Your task to perform on an android device: install app "Microsoft Outlook" Image 0: 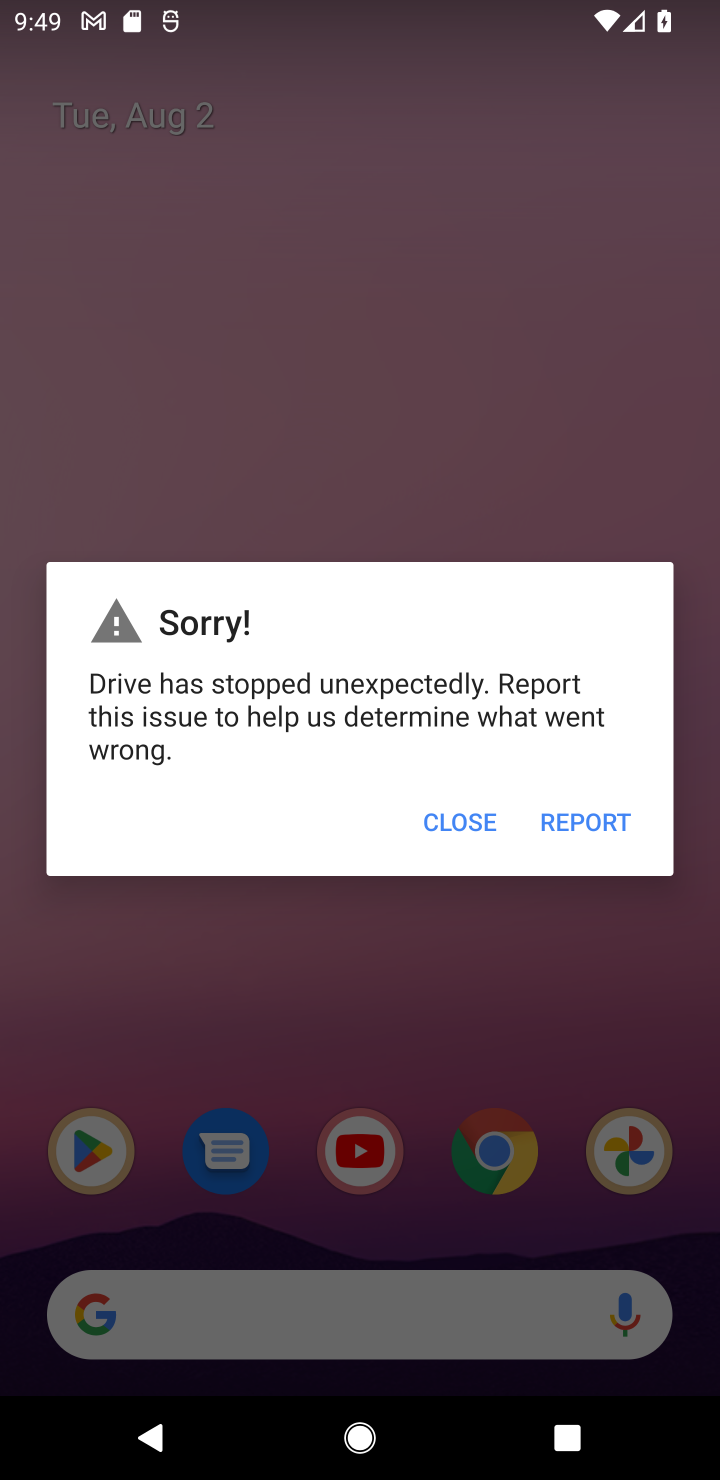
Step 0: click (468, 1242)
Your task to perform on an android device: install app "Microsoft Outlook" Image 1: 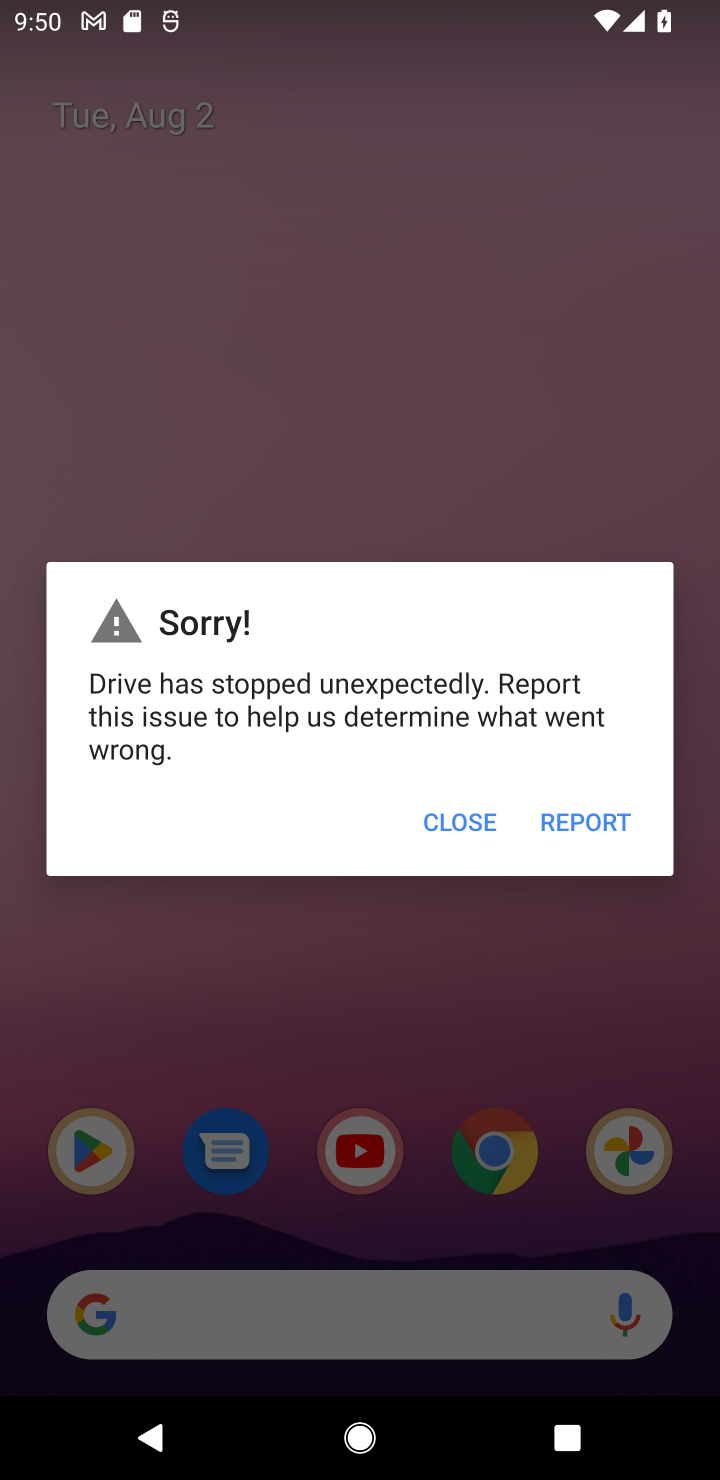
Step 1: click (498, 838)
Your task to perform on an android device: install app "Microsoft Outlook" Image 2: 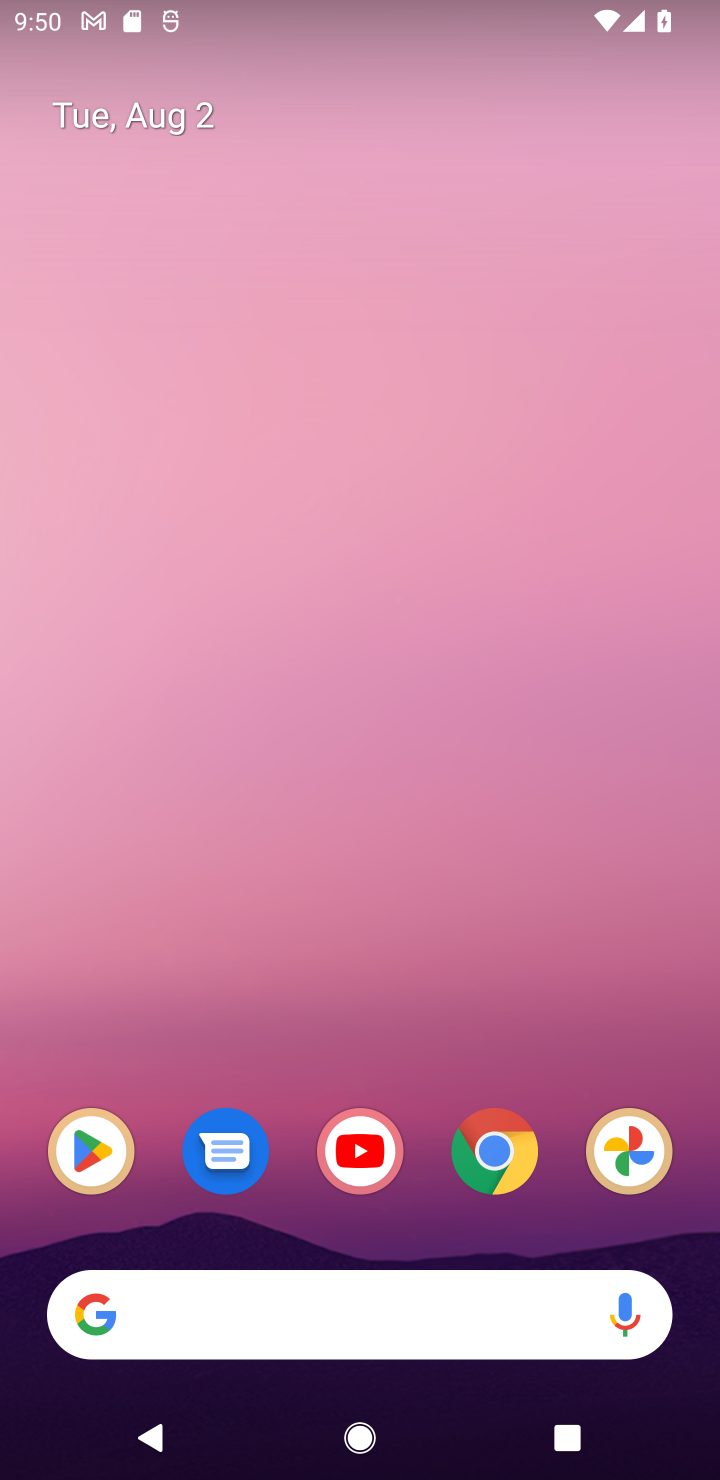
Step 2: click (87, 1166)
Your task to perform on an android device: install app "Microsoft Outlook" Image 3: 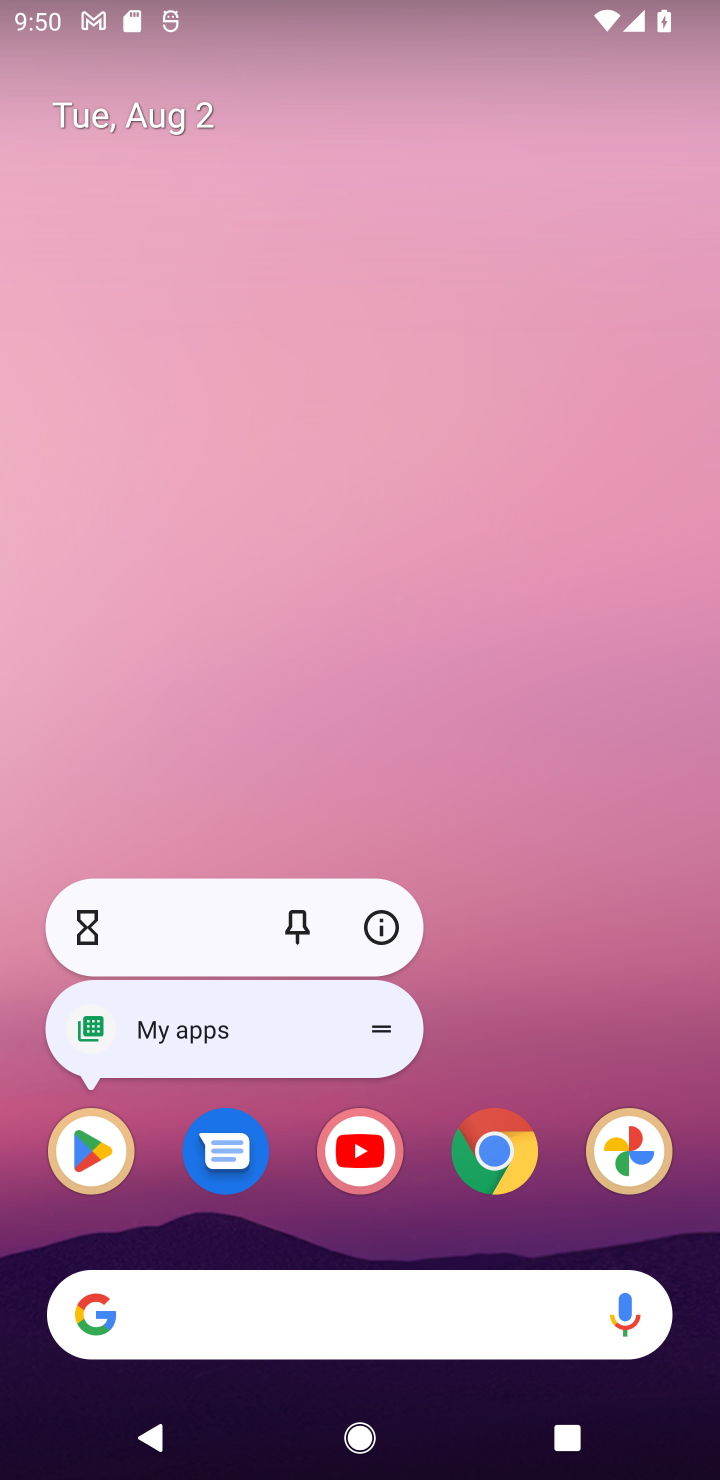
Step 3: click (94, 1164)
Your task to perform on an android device: install app "Microsoft Outlook" Image 4: 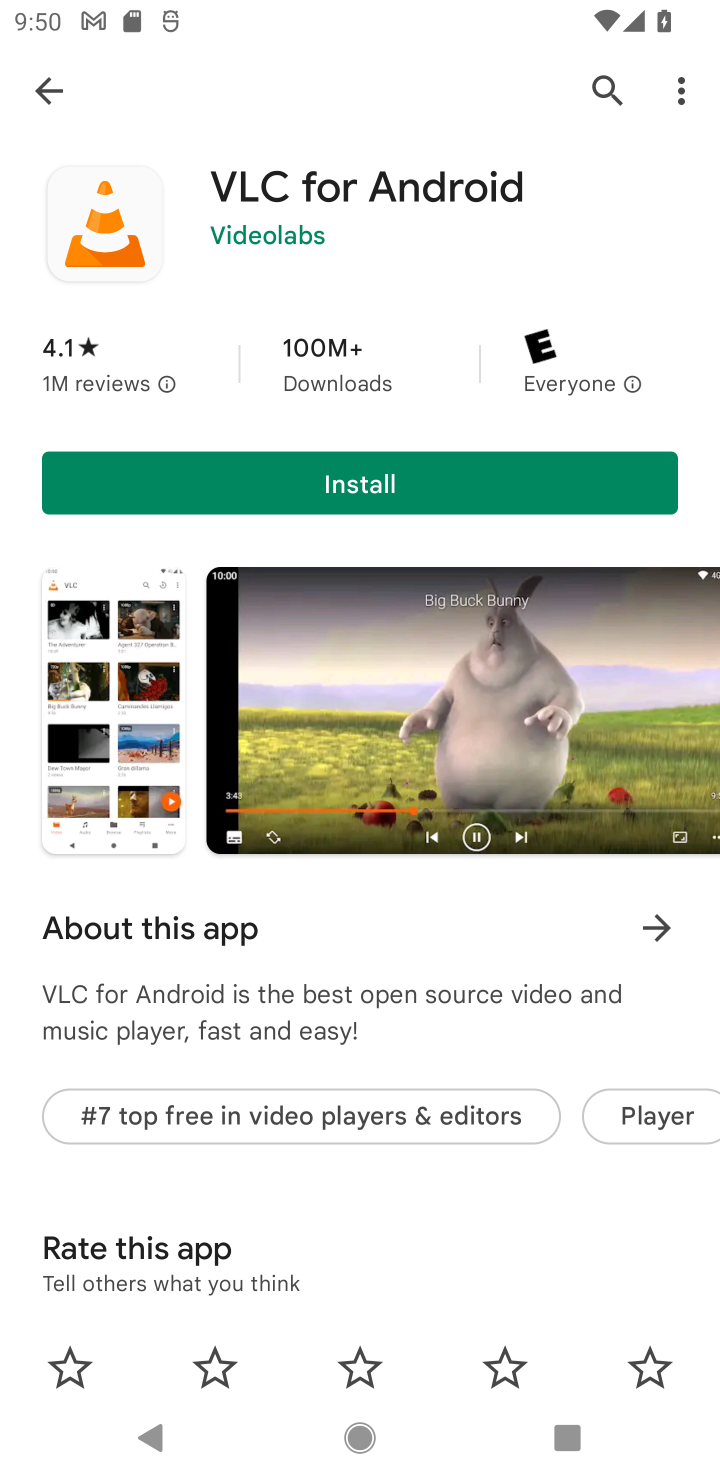
Step 4: click (17, 93)
Your task to perform on an android device: install app "Microsoft Outlook" Image 5: 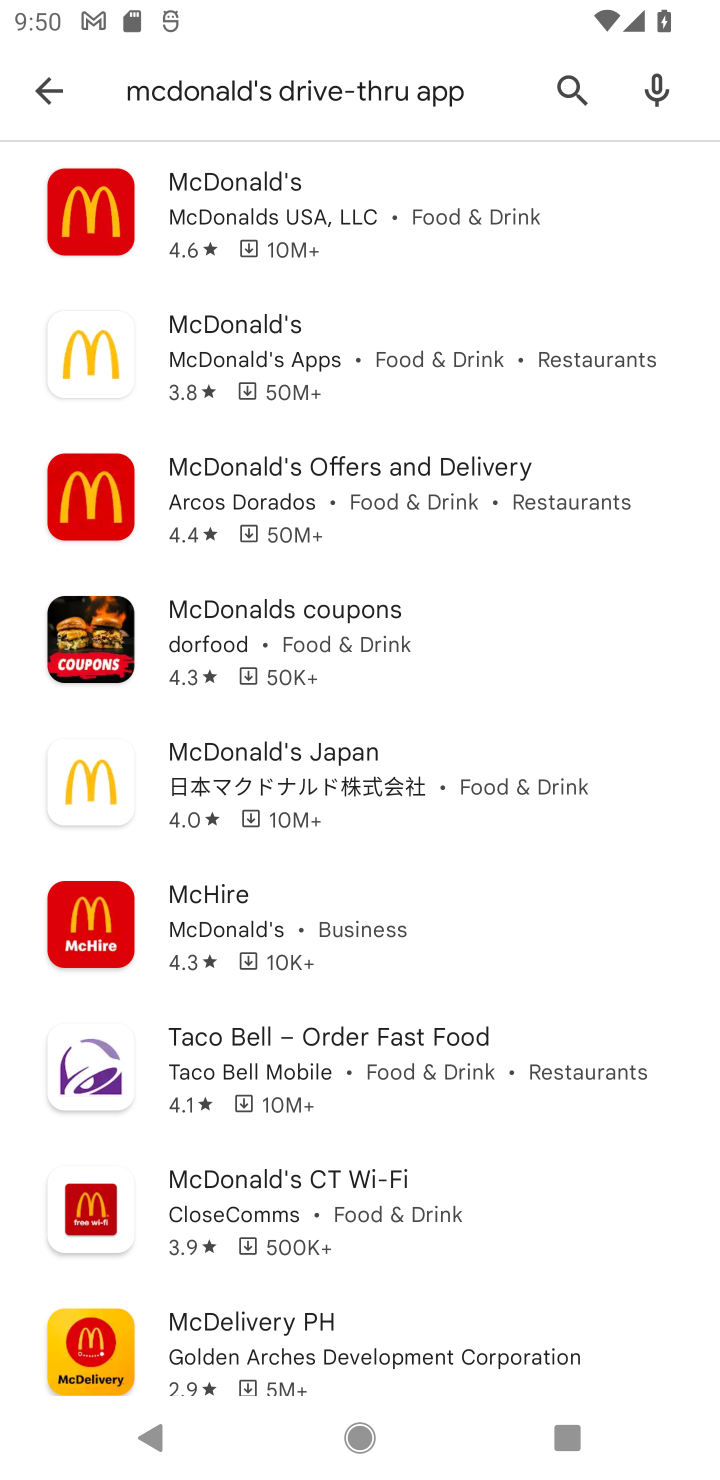
Step 5: click (572, 91)
Your task to perform on an android device: install app "Microsoft Outlook" Image 6: 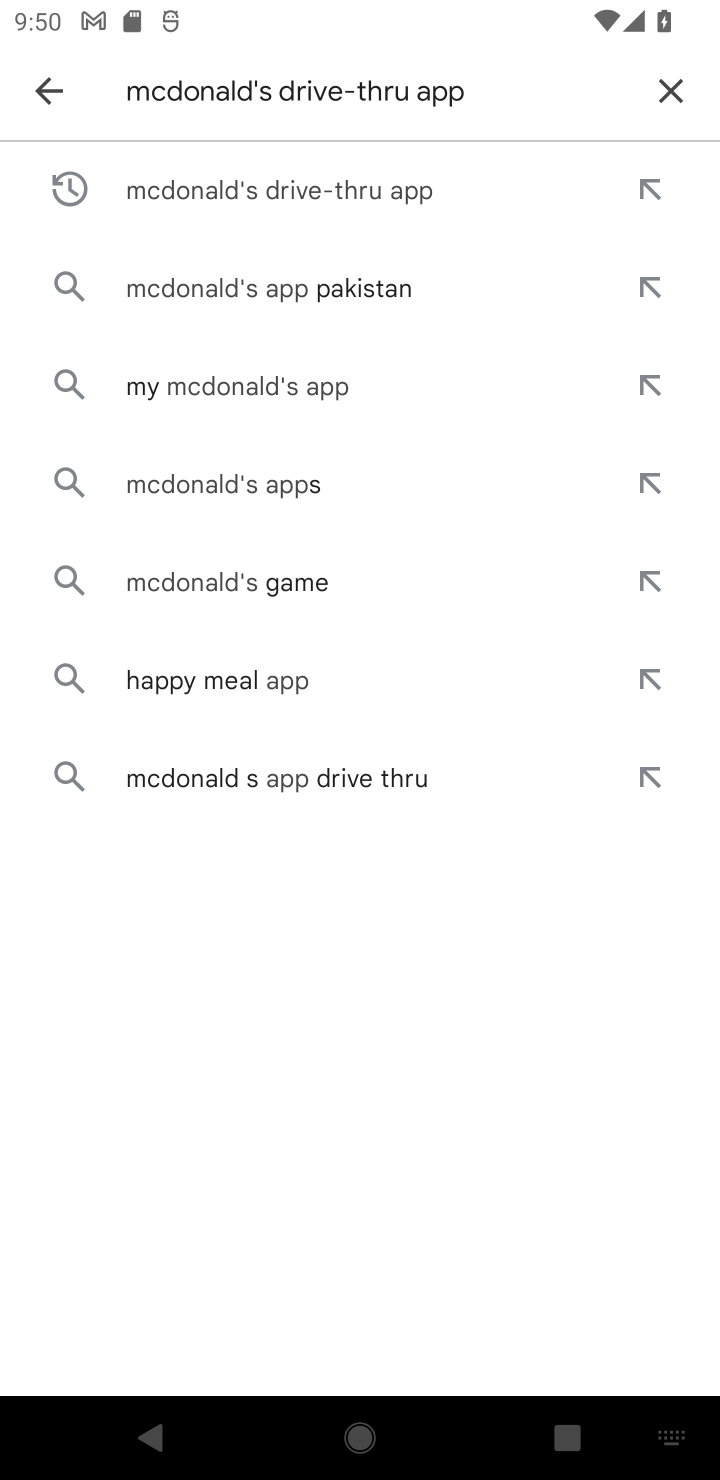
Step 6: click (649, 95)
Your task to perform on an android device: install app "Microsoft Outlook" Image 7: 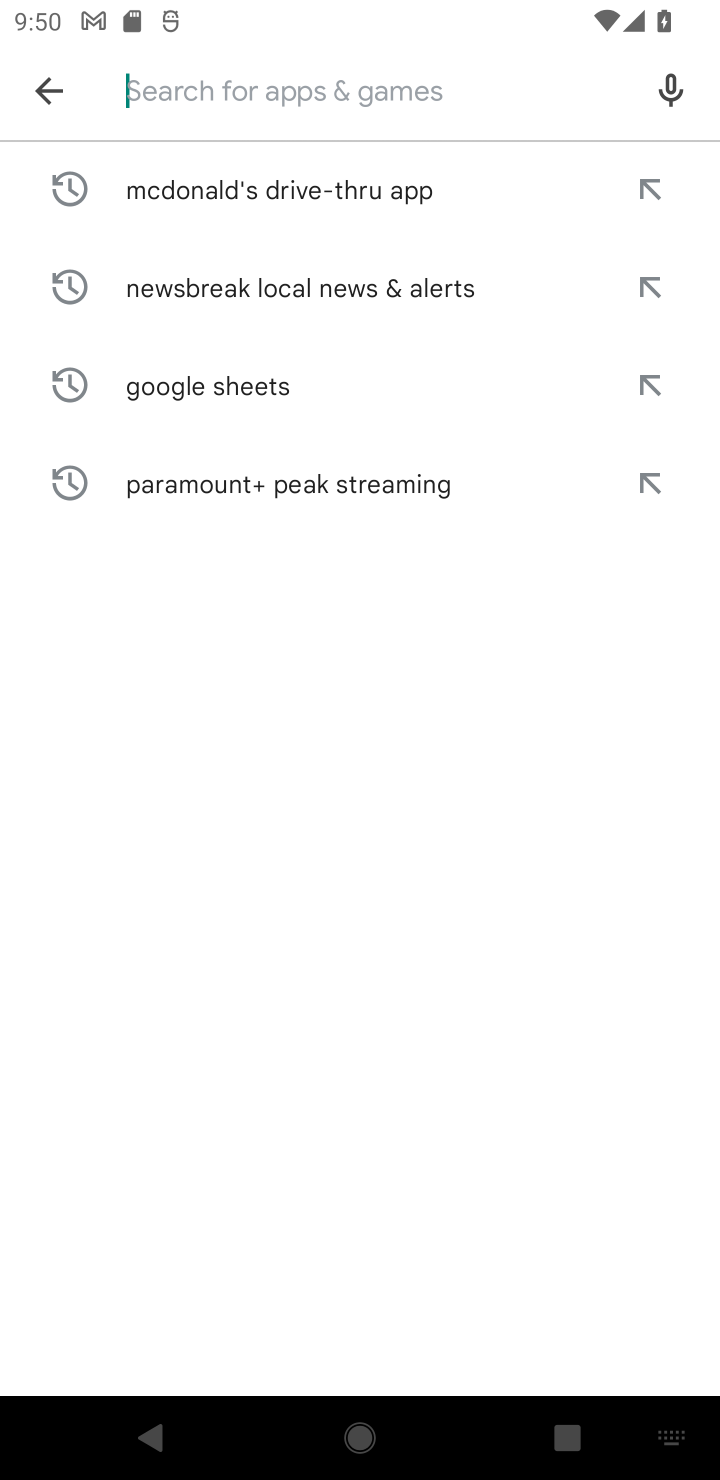
Step 7: type "Microsoft Outlook"
Your task to perform on an android device: install app "Microsoft Outlook" Image 8: 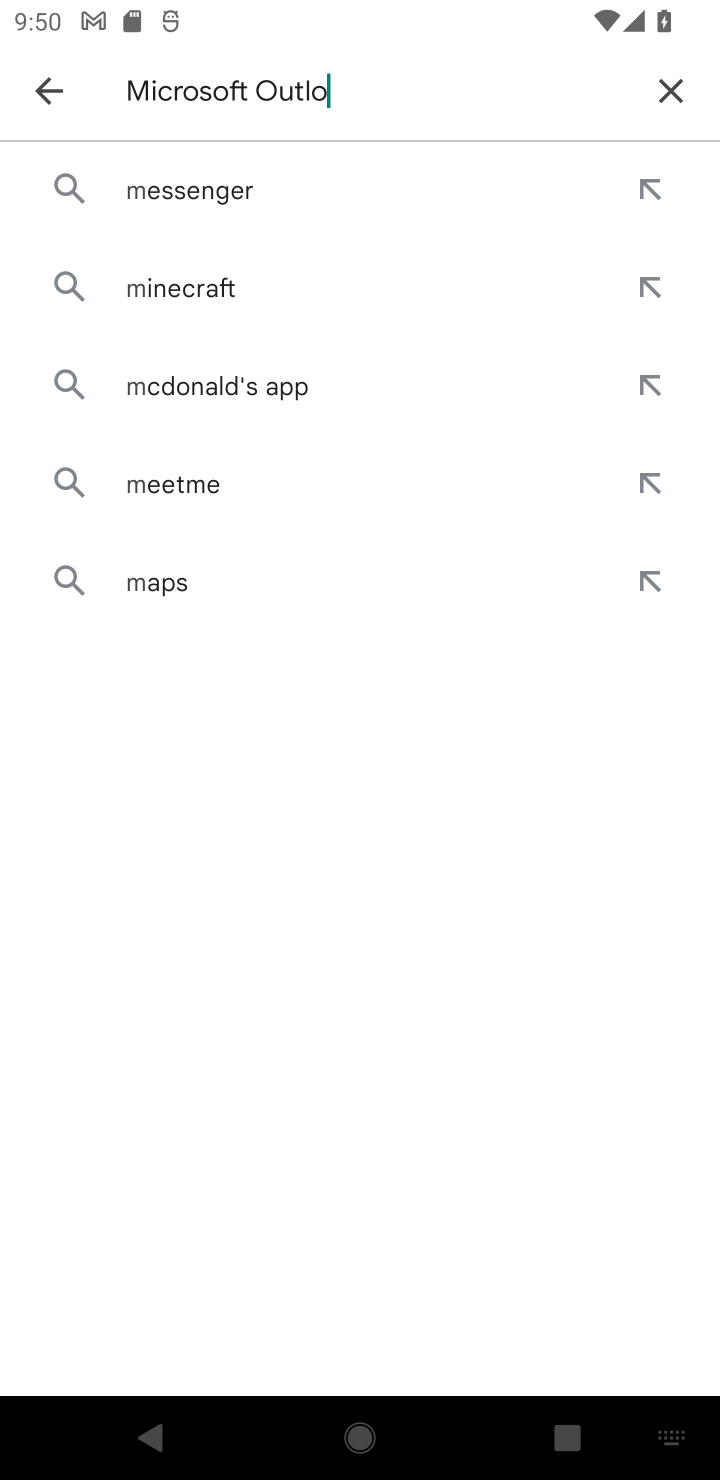
Step 8: type ""
Your task to perform on an android device: install app "Microsoft Outlook" Image 9: 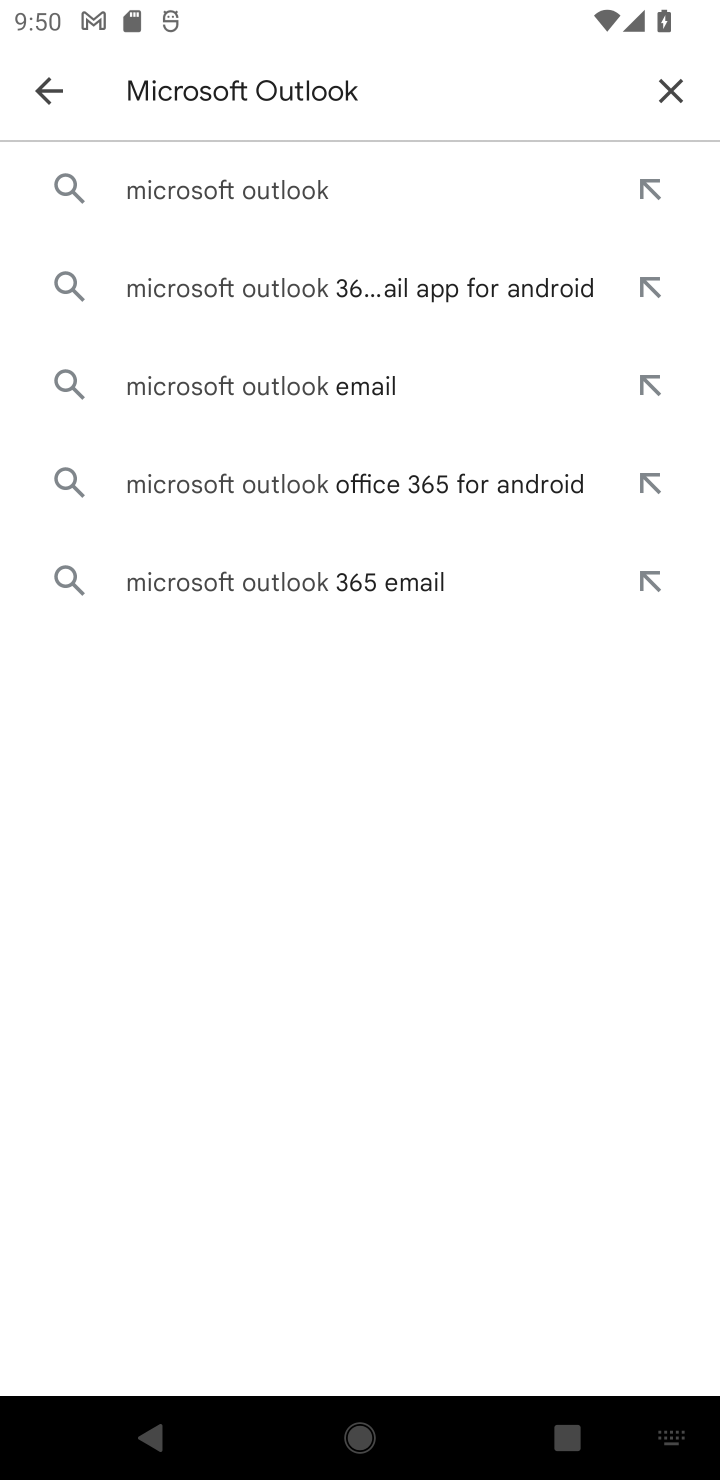
Step 9: click (176, 196)
Your task to perform on an android device: install app "Microsoft Outlook" Image 10: 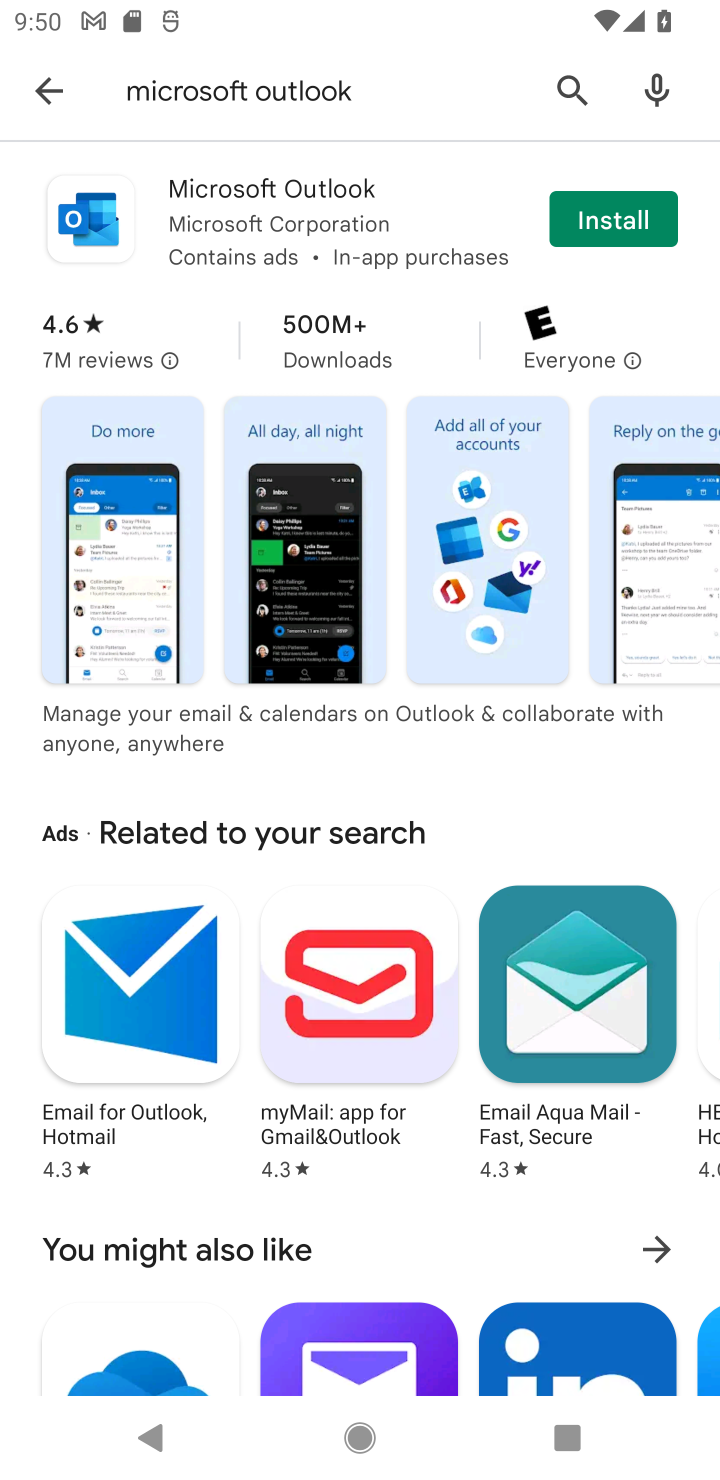
Step 10: click (599, 242)
Your task to perform on an android device: install app "Microsoft Outlook" Image 11: 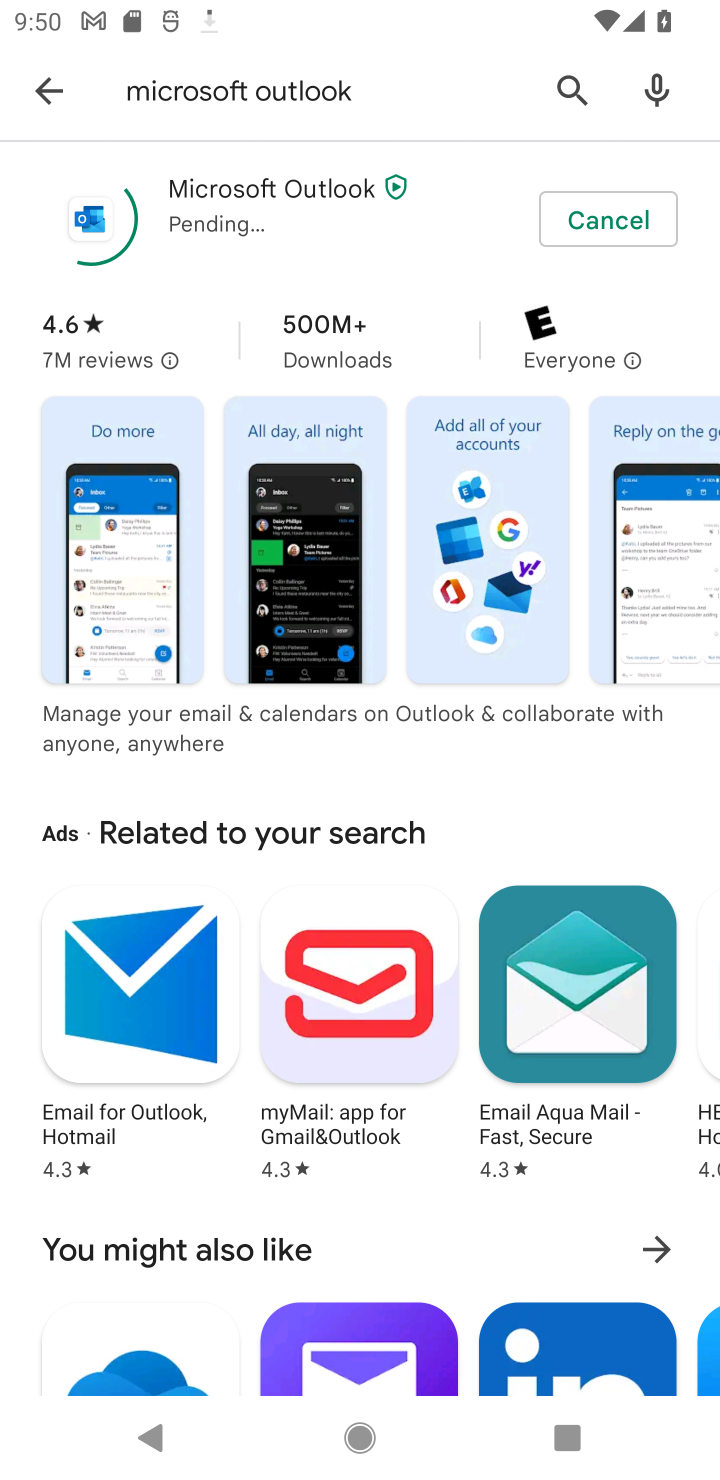
Step 11: task complete